Your task to perform on an android device: turn notification dots off Image 0: 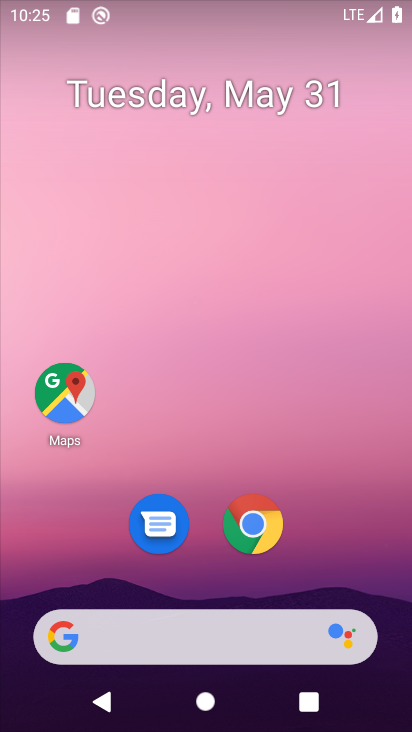
Step 0: drag from (220, 475) to (246, 23)
Your task to perform on an android device: turn notification dots off Image 1: 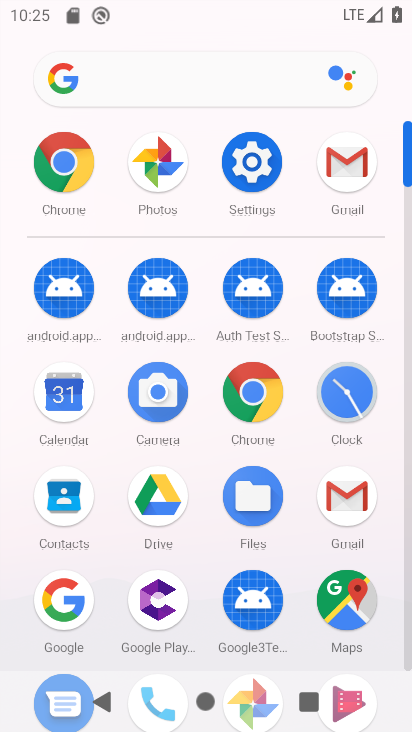
Step 1: click (250, 164)
Your task to perform on an android device: turn notification dots off Image 2: 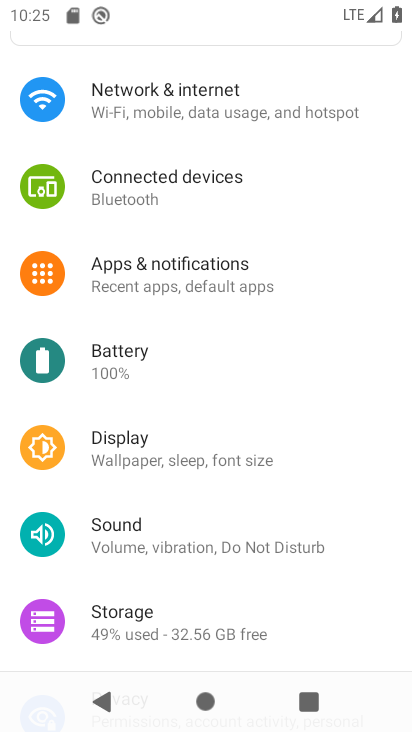
Step 2: click (228, 267)
Your task to perform on an android device: turn notification dots off Image 3: 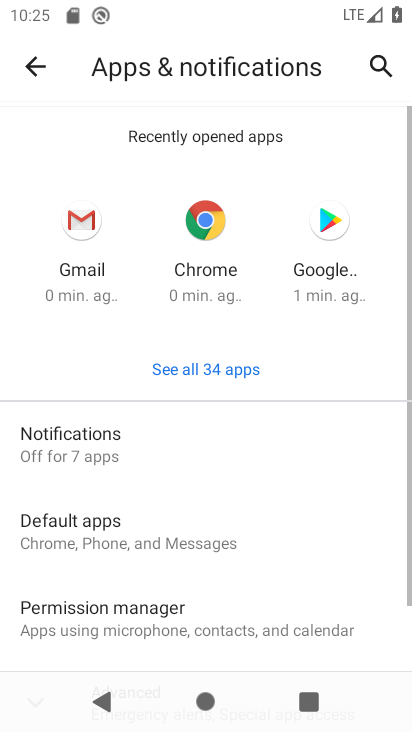
Step 3: click (257, 442)
Your task to perform on an android device: turn notification dots off Image 4: 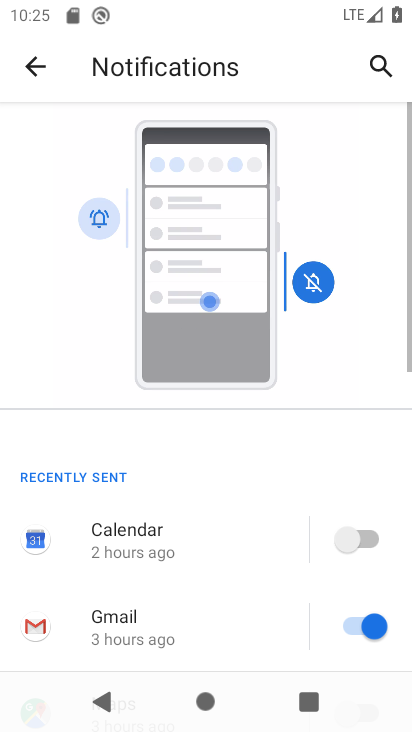
Step 4: drag from (249, 580) to (269, 0)
Your task to perform on an android device: turn notification dots off Image 5: 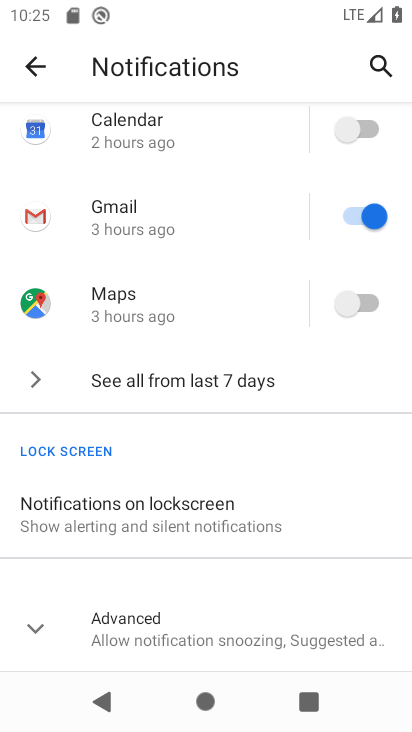
Step 5: click (25, 631)
Your task to perform on an android device: turn notification dots off Image 6: 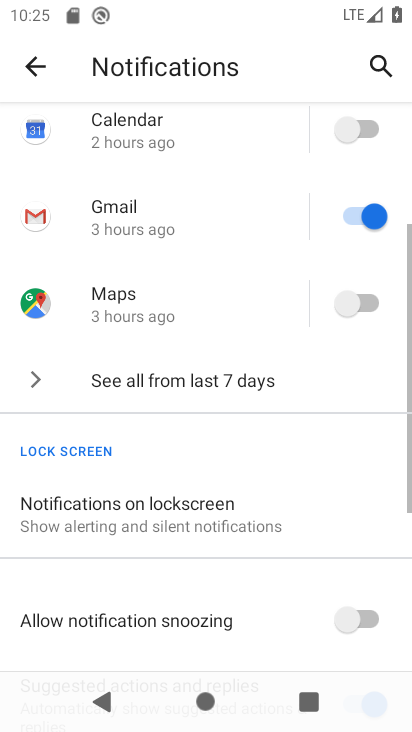
Step 6: drag from (196, 602) to (233, 193)
Your task to perform on an android device: turn notification dots off Image 7: 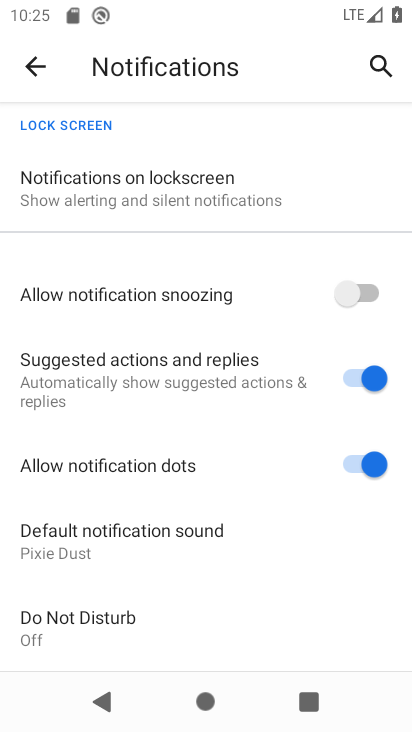
Step 7: click (353, 460)
Your task to perform on an android device: turn notification dots off Image 8: 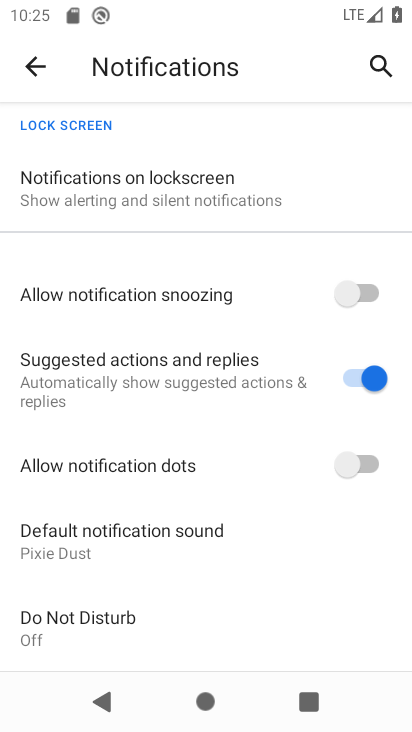
Step 8: task complete